Your task to perform on an android device: toggle translation in the chrome app Image 0: 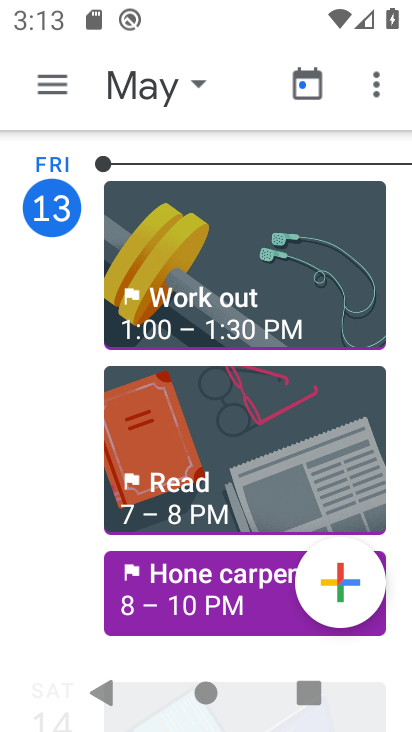
Step 0: press home button
Your task to perform on an android device: toggle translation in the chrome app Image 1: 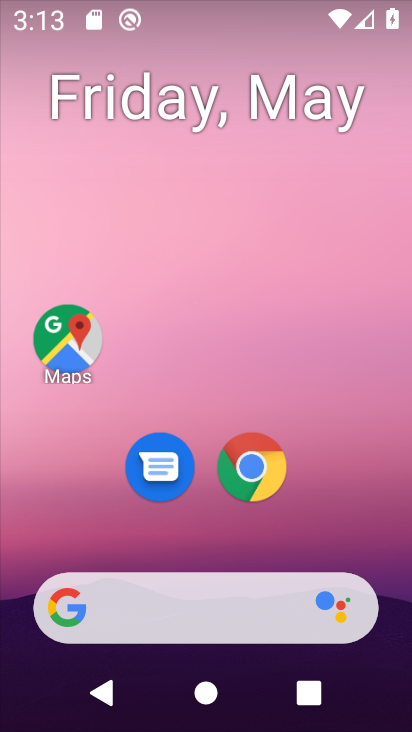
Step 1: click (245, 472)
Your task to perform on an android device: toggle translation in the chrome app Image 2: 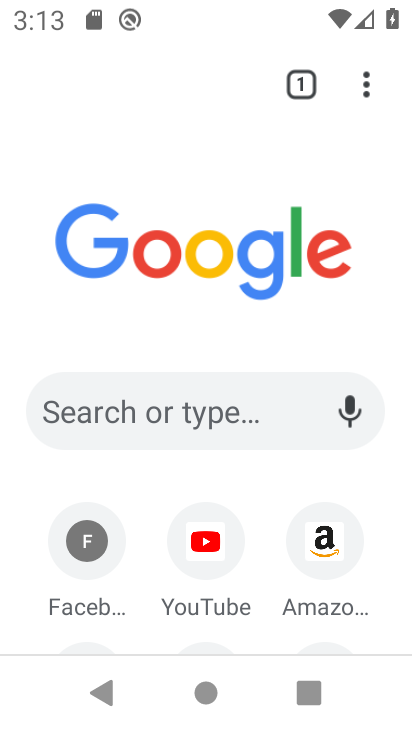
Step 2: click (370, 87)
Your task to perform on an android device: toggle translation in the chrome app Image 3: 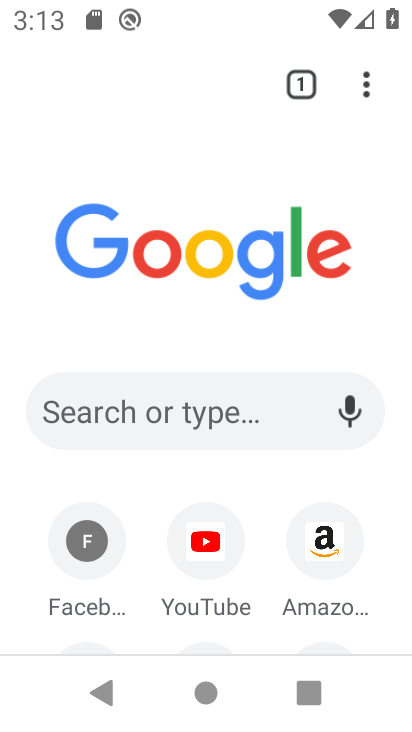
Step 3: click (357, 87)
Your task to perform on an android device: toggle translation in the chrome app Image 4: 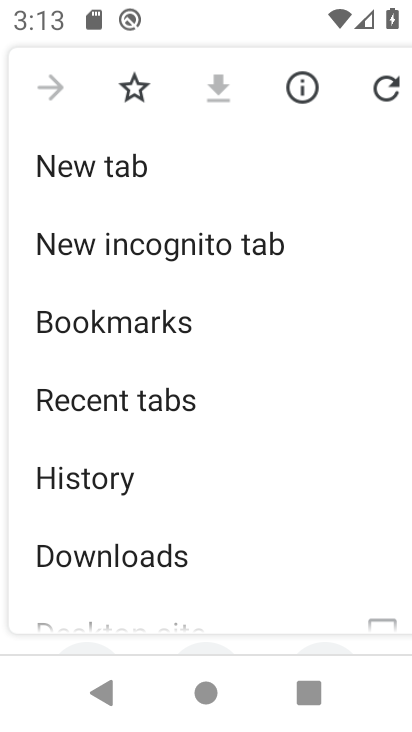
Step 4: drag from (186, 425) to (170, 144)
Your task to perform on an android device: toggle translation in the chrome app Image 5: 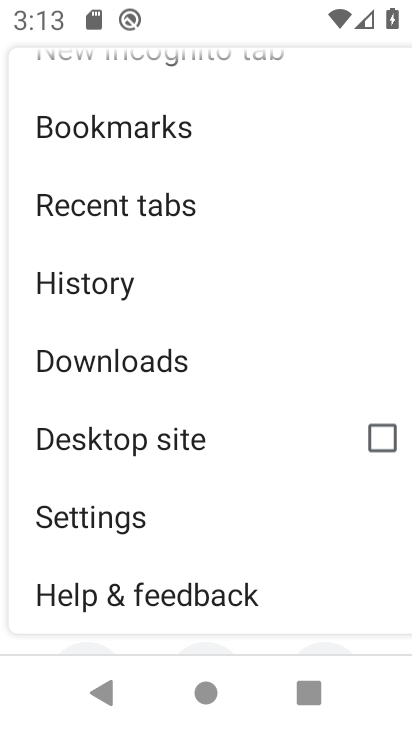
Step 5: click (157, 522)
Your task to perform on an android device: toggle translation in the chrome app Image 6: 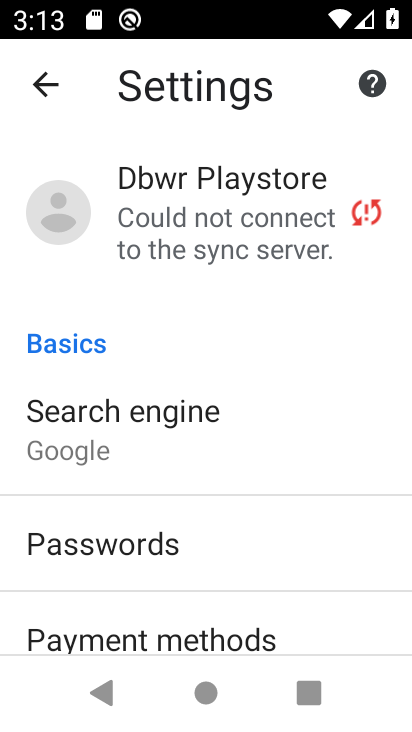
Step 6: drag from (267, 574) to (234, 107)
Your task to perform on an android device: toggle translation in the chrome app Image 7: 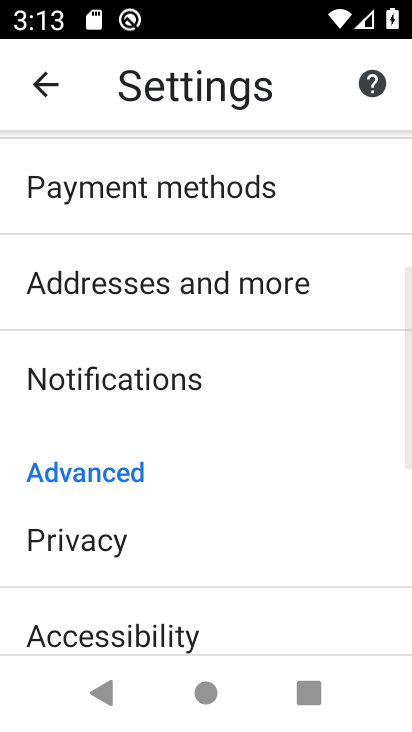
Step 7: drag from (204, 557) to (181, 177)
Your task to perform on an android device: toggle translation in the chrome app Image 8: 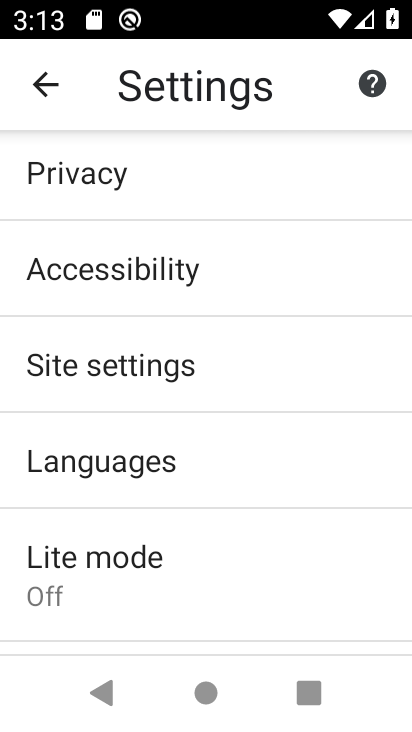
Step 8: click (166, 460)
Your task to perform on an android device: toggle translation in the chrome app Image 9: 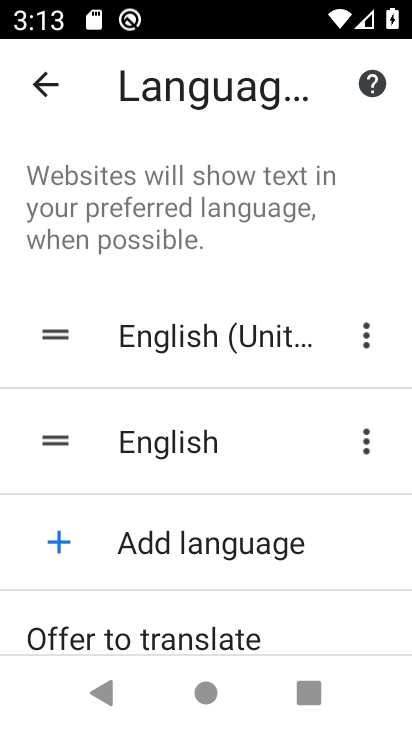
Step 9: drag from (219, 521) to (234, 237)
Your task to perform on an android device: toggle translation in the chrome app Image 10: 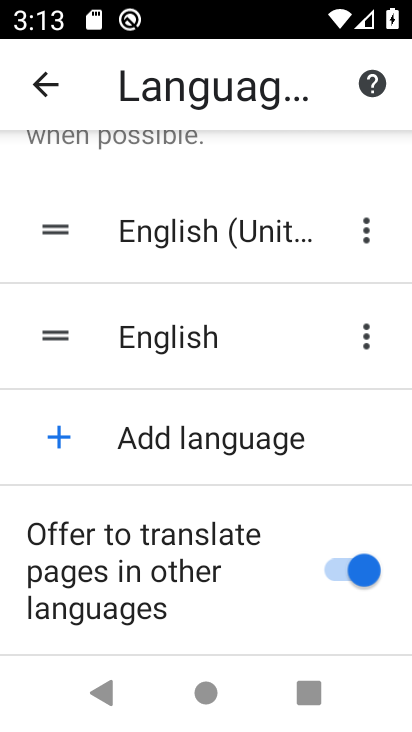
Step 10: click (355, 572)
Your task to perform on an android device: toggle translation in the chrome app Image 11: 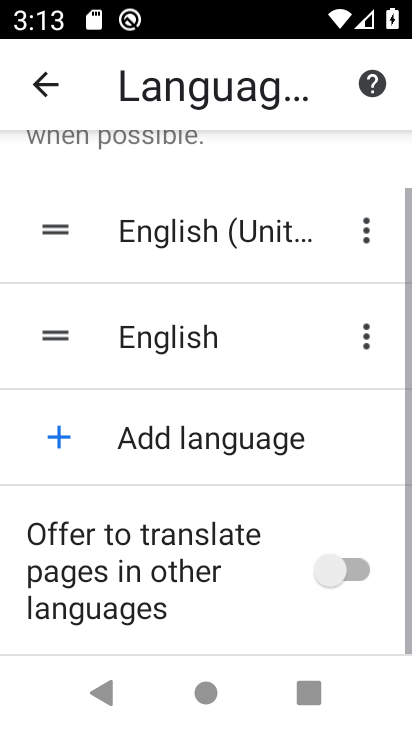
Step 11: task complete